Your task to perform on an android device: turn off picture-in-picture Image 0: 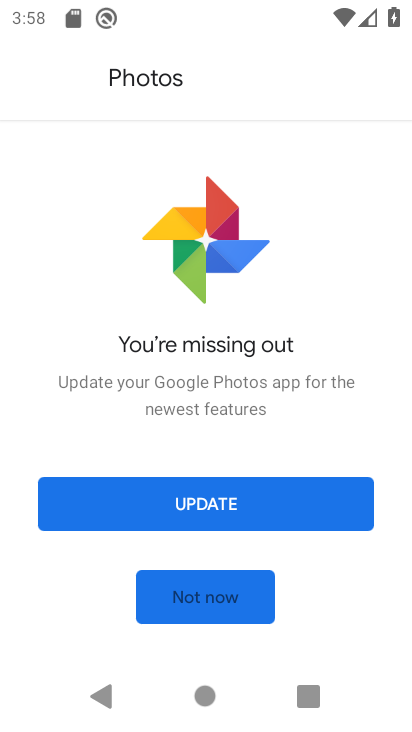
Step 0: press home button
Your task to perform on an android device: turn off picture-in-picture Image 1: 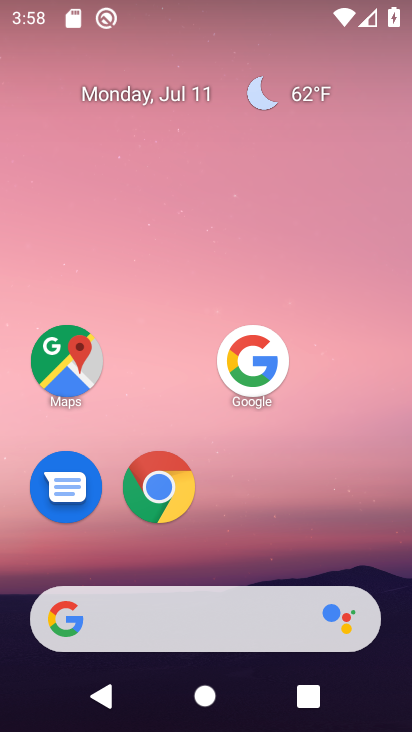
Step 1: click (161, 484)
Your task to perform on an android device: turn off picture-in-picture Image 2: 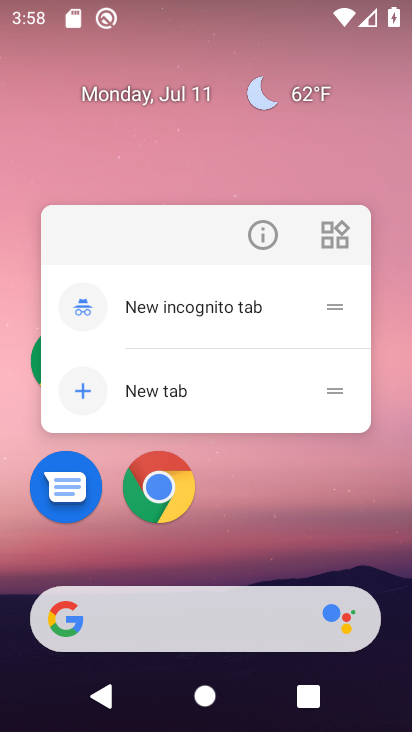
Step 2: click (255, 232)
Your task to perform on an android device: turn off picture-in-picture Image 3: 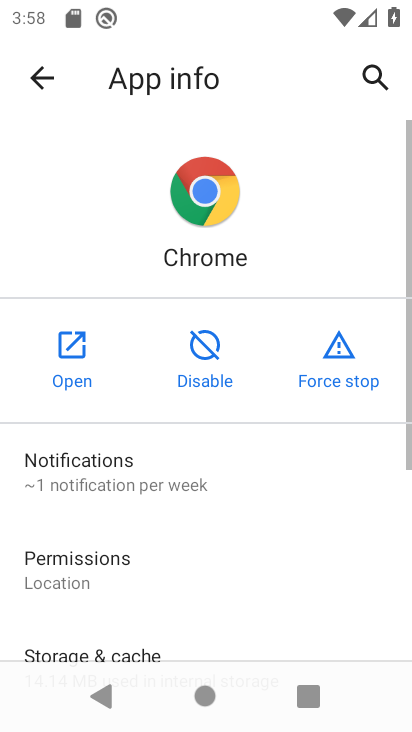
Step 3: drag from (179, 610) to (270, 77)
Your task to perform on an android device: turn off picture-in-picture Image 4: 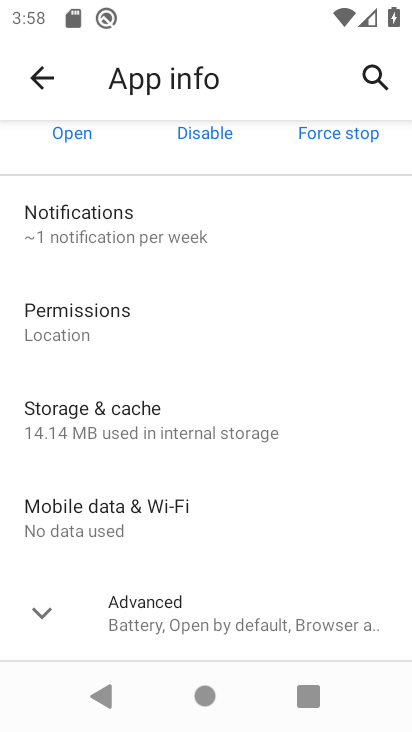
Step 4: click (167, 612)
Your task to perform on an android device: turn off picture-in-picture Image 5: 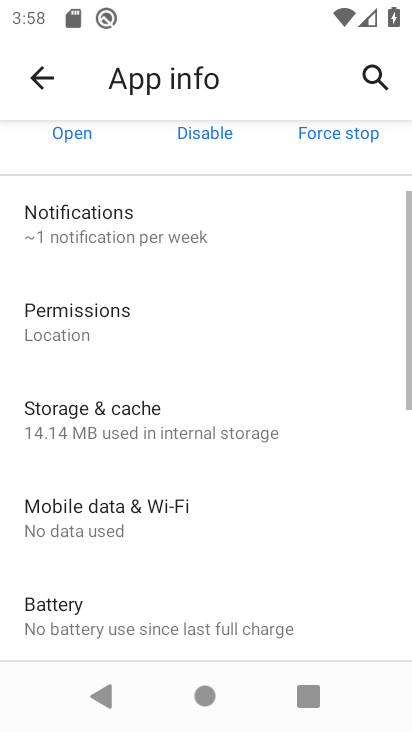
Step 5: drag from (191, 590) to (312, 65)
Your task to perform on an android device: turn off picture-in-picture Image 6: 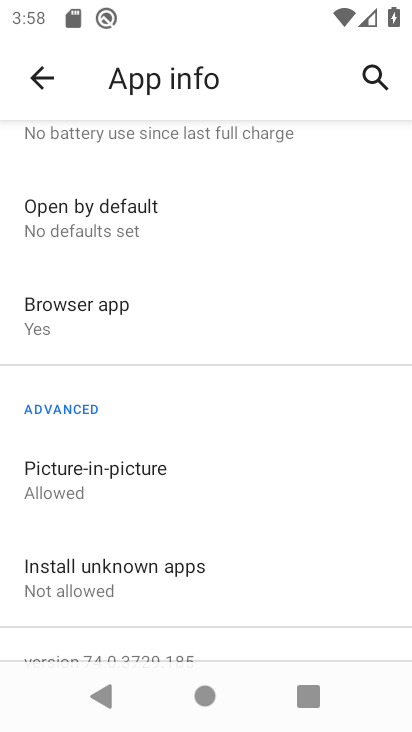
Step 6: click (92, 499)
Your task to perform on an android device: turn off picture-in-picture Image 7: 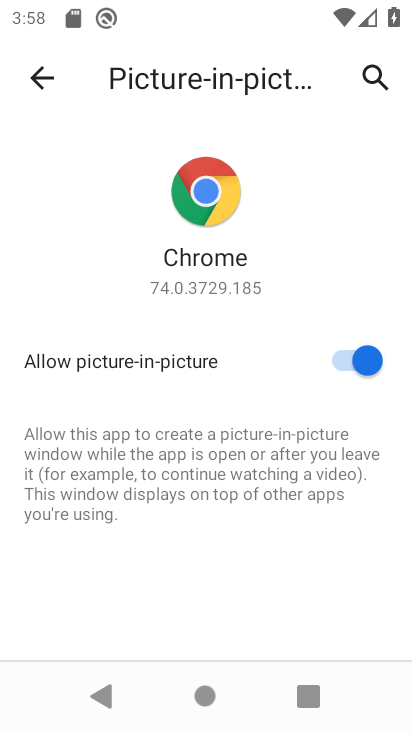
Step 7: click (343, 356)
Your task to perform on an android device: turn off picture-in-picture Image 8: 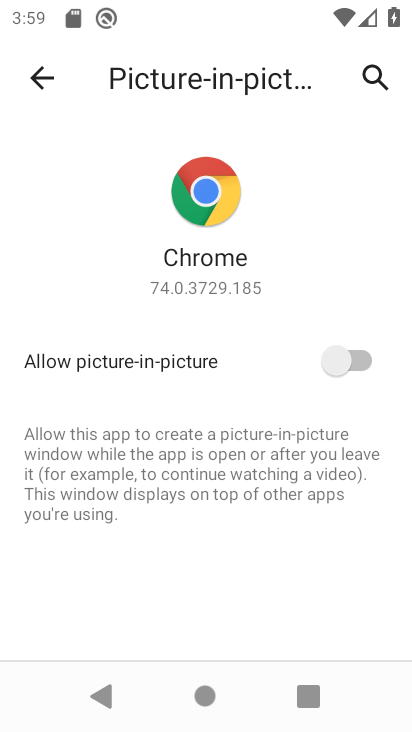
Step 8: task complete